Your task to perform on an android device: turn on bluetooth scan Image 0: 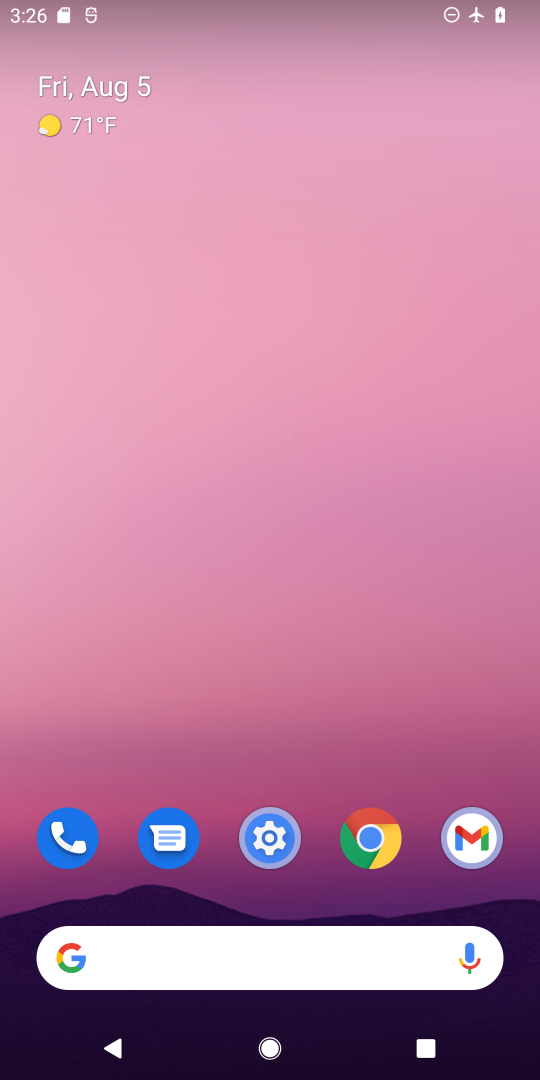
Step 0: drag from (407, 763) to (346, 73)
Your task to perform on an android device: turn on bluetooth scan Image 1: 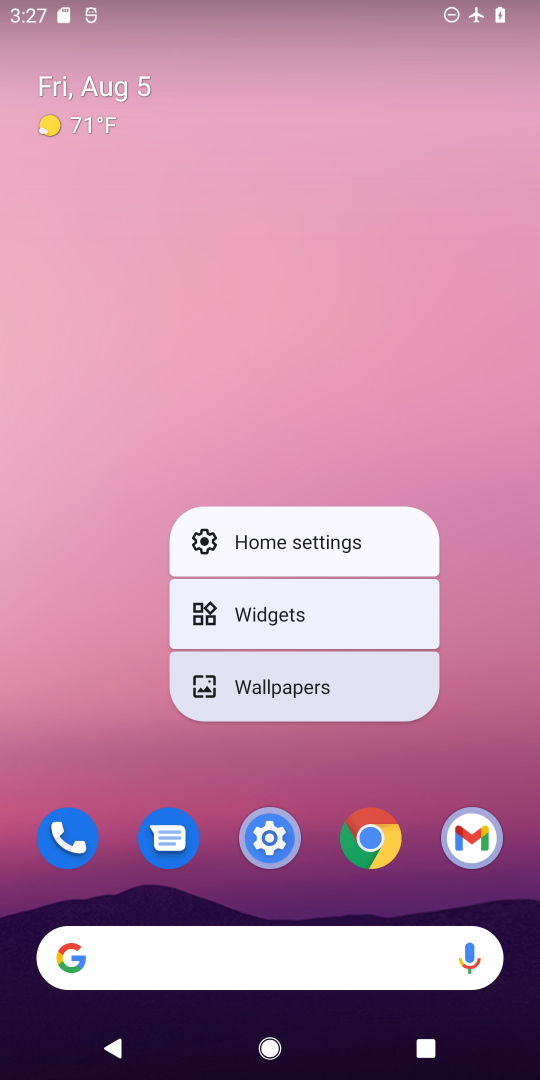
Step 1: click (269, 836)
Your task to perform on an android device: turn on bluetooth scan Image 2: 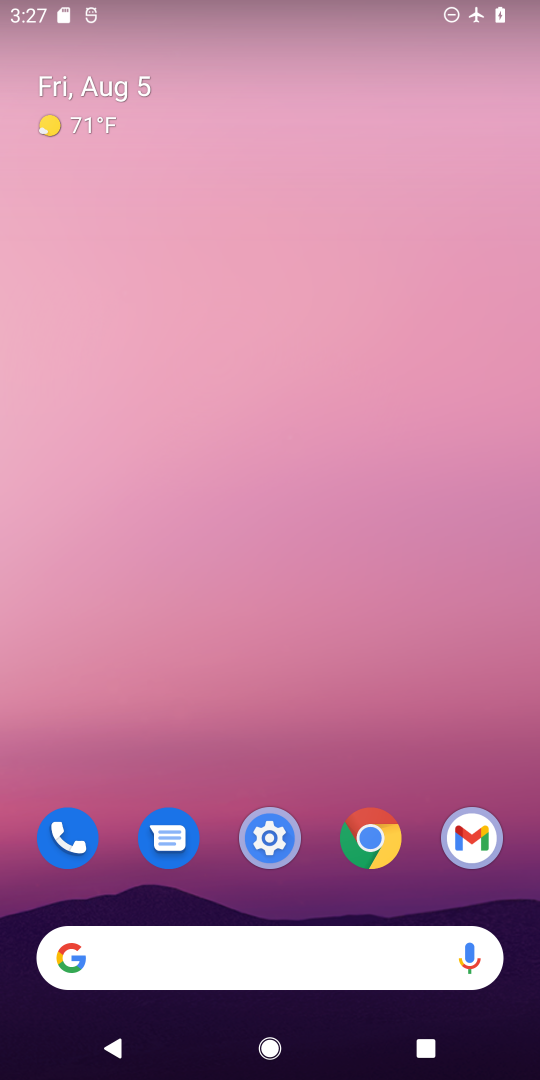
Step 2: click (278, 851)
Your task to perform on an android device: turn on bluetooth scan Image 3: 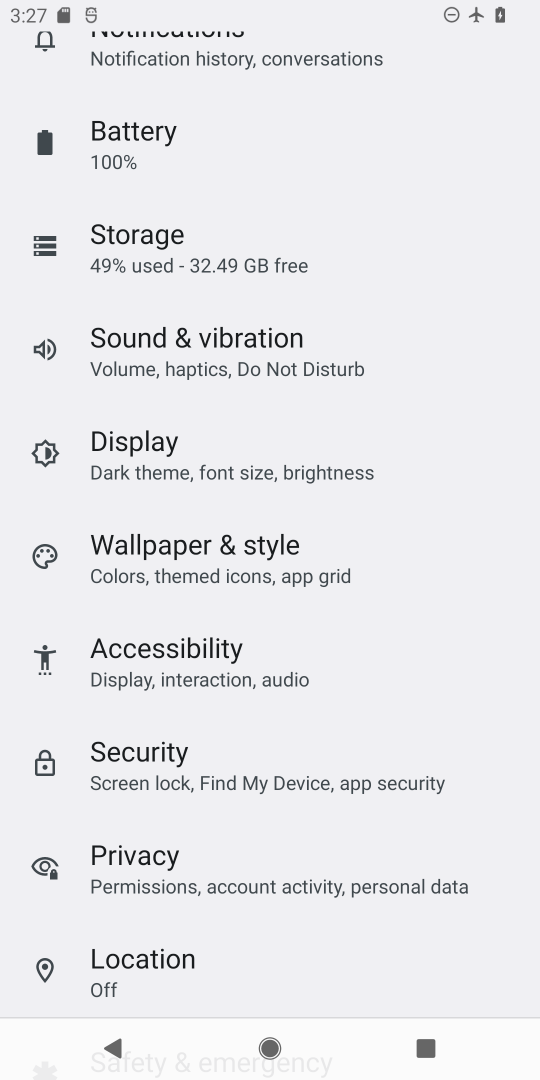
Step 3: drag from (305, 957) to (295, 607)
Your task to perform on an android device: turn on bluetooth scan Image 4: 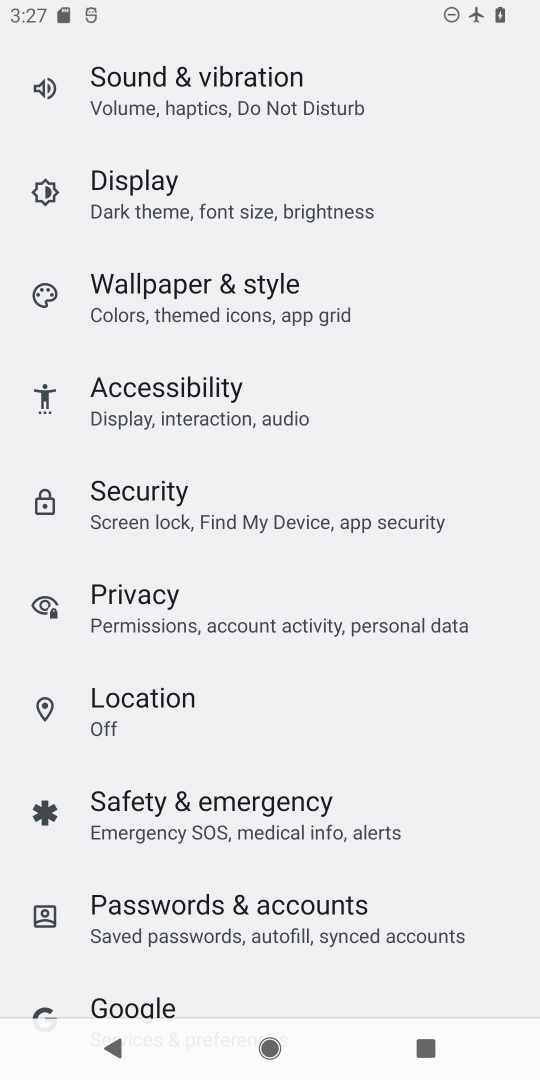
Step 4: click (301, 720)
Your task to perform on an android device: turn on bluetooth scan Image 5: 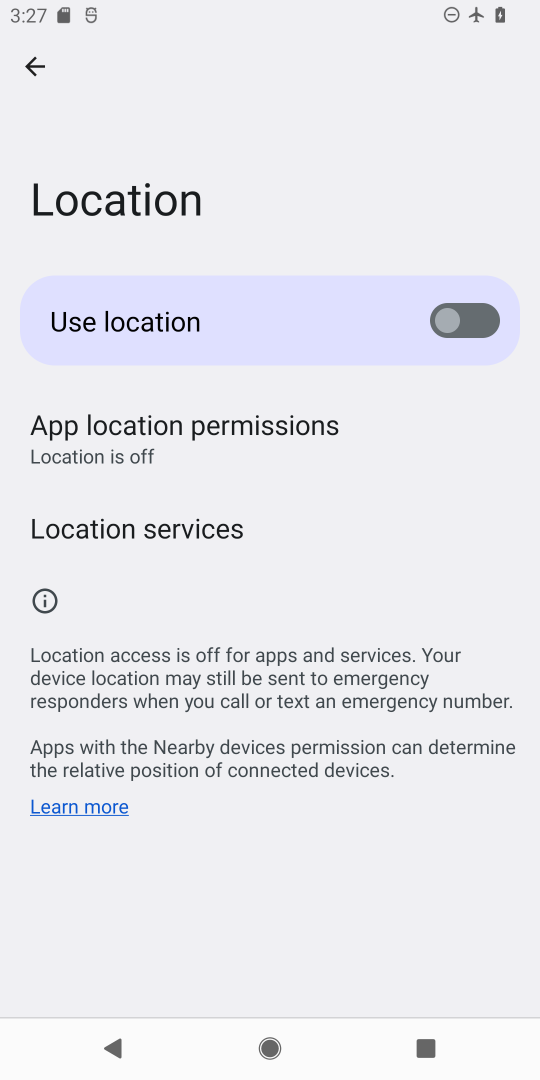
Step 5: click (320, 565)
Your task to perform on an android device: turn on bluetooth scan Image 6: 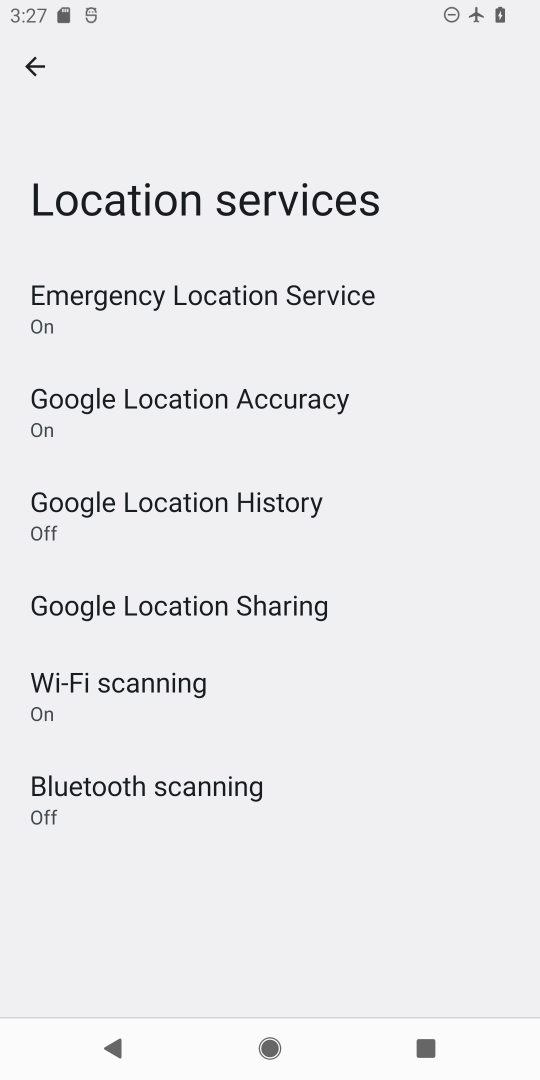
Step 6: click (228, 785)
Your task to perform on an android device: turn on bluetooth scan Image 7: 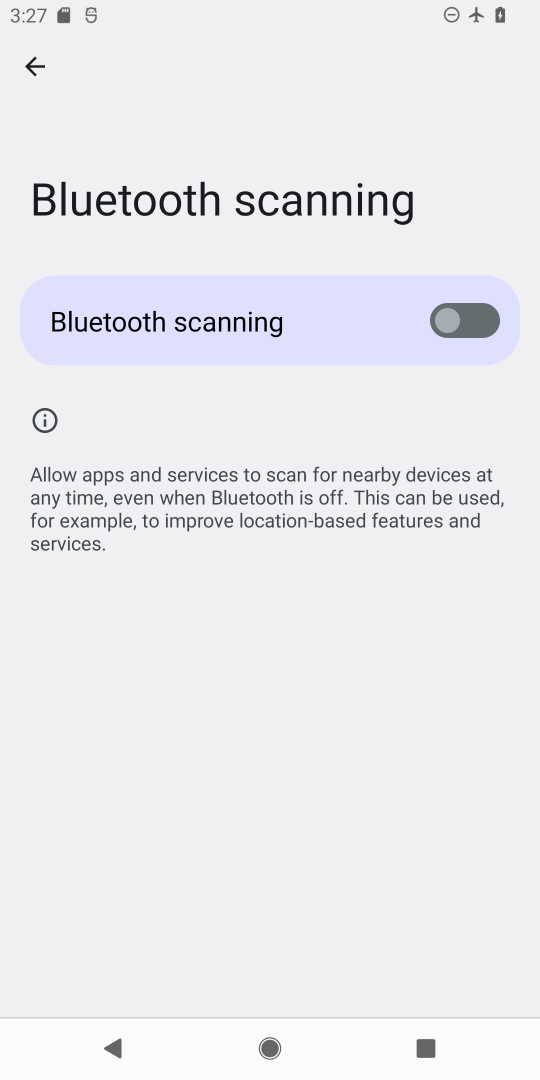
Step 7: click (470, 314)
Your task to perform on an android device: turn on bluetooth scan Image 8: 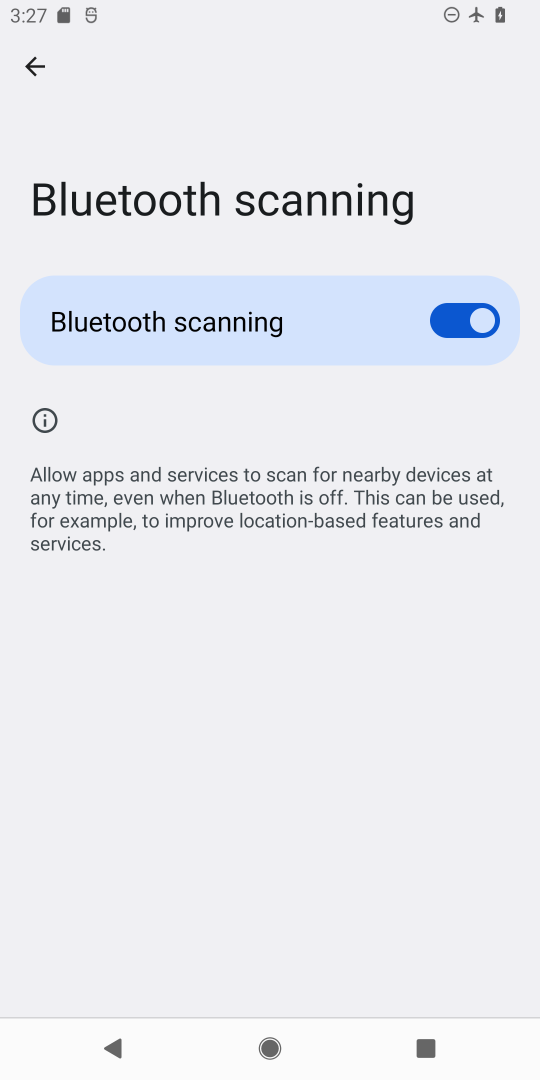
Step 8: task complete